Your task to perform on an android device: turn off notifications in google photos Image 0: 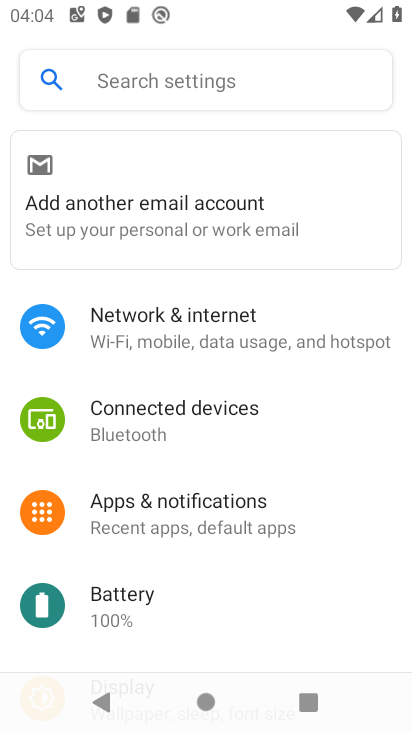
Step 0: press home button
Your task to perform on an android device: turn off notifications in google photos Image 1: 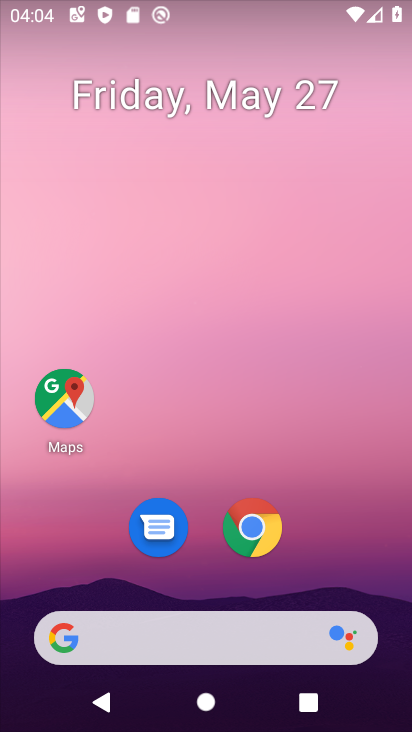
Step 1: drag from (350, 570) to (388, 5)
Your task to perform on an android device: turn off notifications in google photos Image 2: 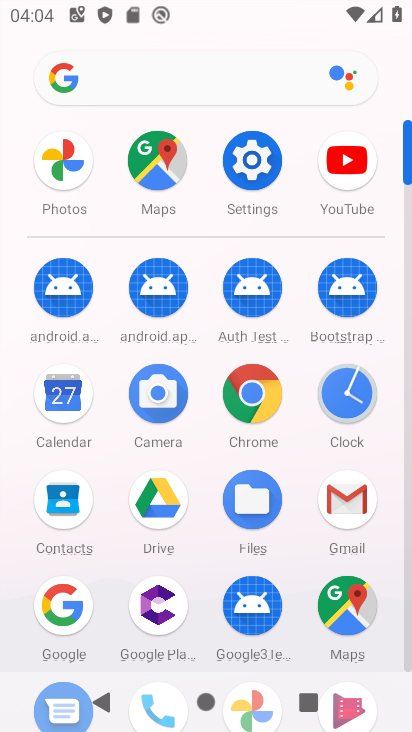
Step 2: drag from (296, 273) to (313, 28)
Your task to perform on an android device: turn off notifications in google photos Image 3: 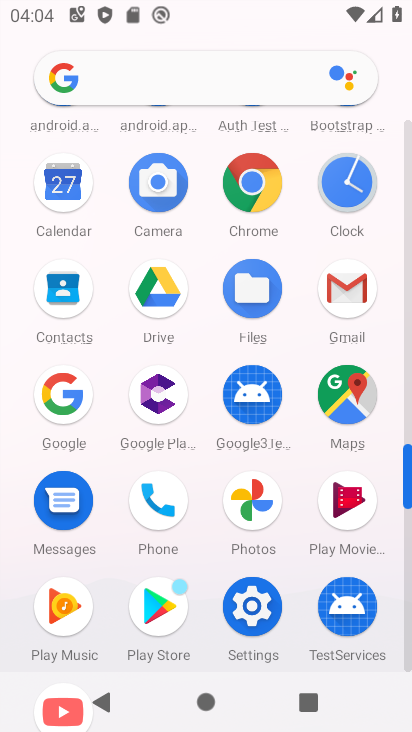
Step 3: click (252, 508)
Your task to perform on an android device: turn off notifications in google photos Image 4: 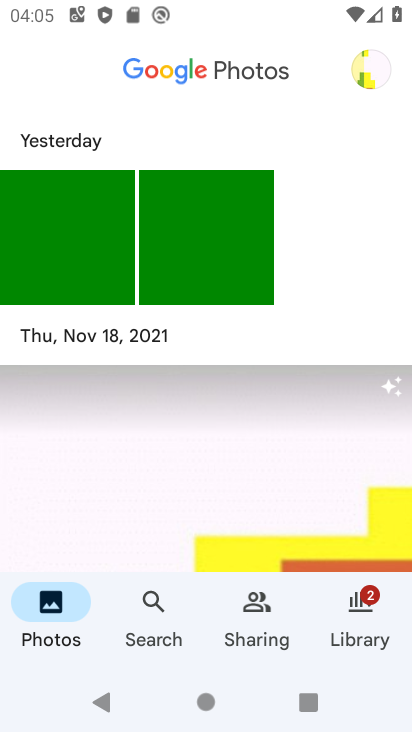
Step 4: press home button
Your task to perform on an android device: turn off notifications in google photos Image 5: 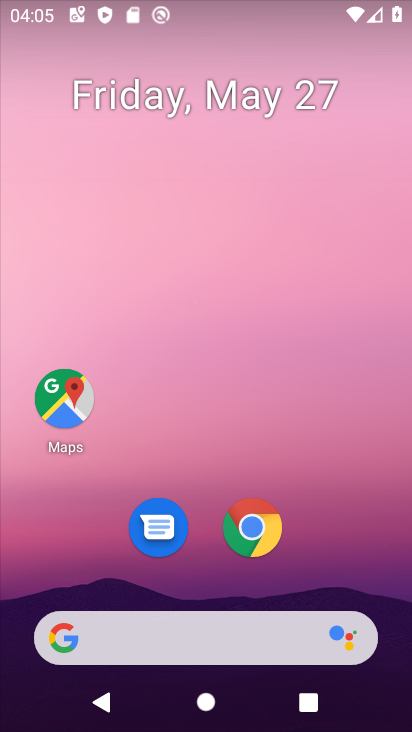
Step 5: drag from (317, 558) to (334, 84)
Your task to perform on an android device: turn off notifications in google photos Image 6: 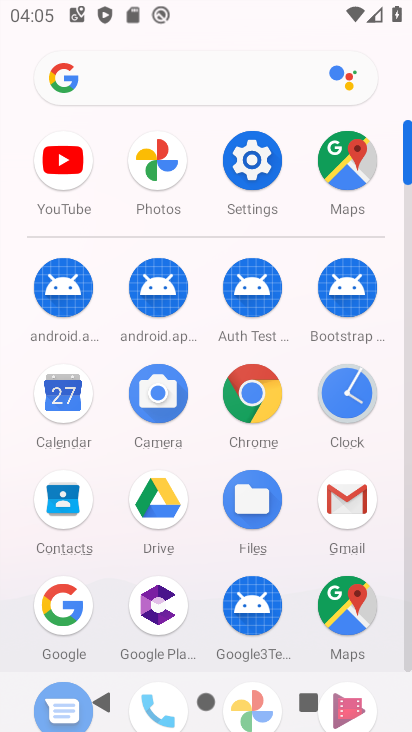
Step 6: drag from (288, 274) to (313, 53)
Your task to perform on an android device: turn off notifications in google photos Image 7: 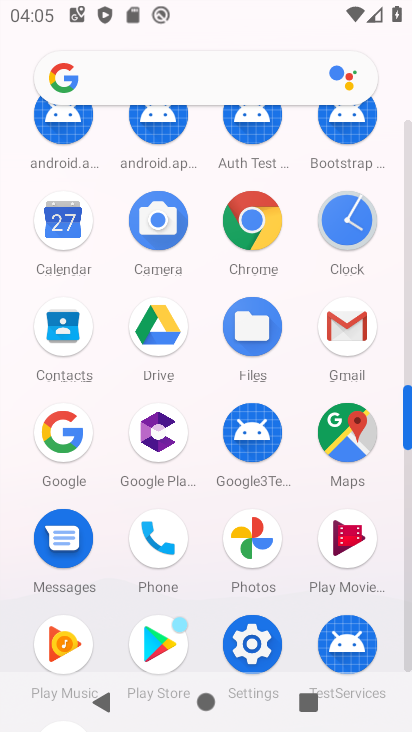
Step 7: click (250, 528)
Your task to perform on an android device: turn off notifications in google photos Image 8: 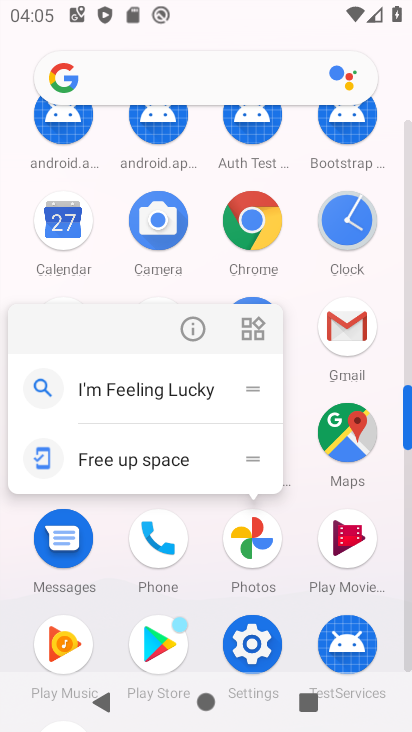
Step 8: click (189, 326)
Your task to perform on an android device: turn off notifications in google photos Image 9: 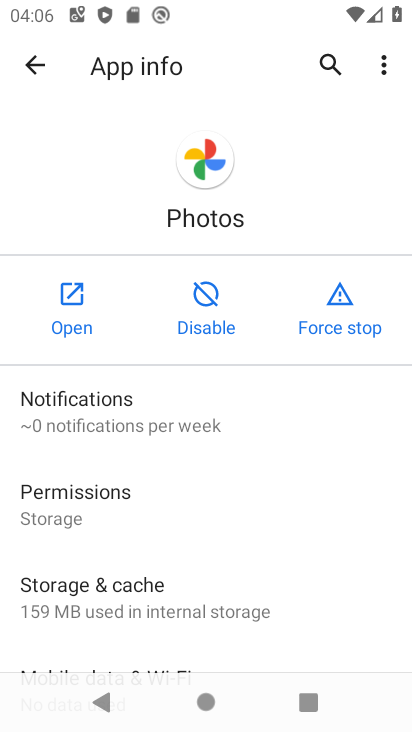
Step 9: click (65, 416)
Your task to perform on an android device: turn off notifications in google photos Image 10: 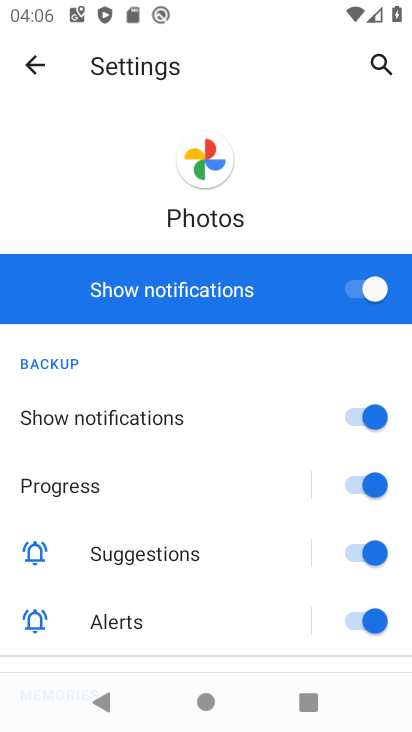
Step 10: click (353, 285)
Your task to perform on an android device: turn off notifications in google photos Image 11: 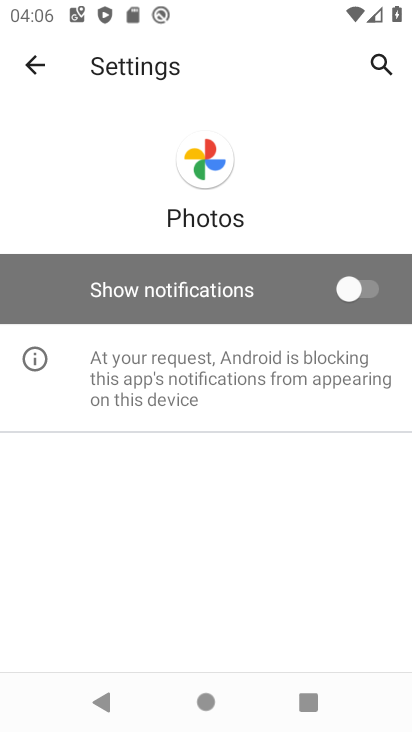
Step 11: task complete